Your task to perform on an android device: Show the shopping cart on bestbuy.com. Add "logitech g502" to the cart on bestbuy.com Image 0: 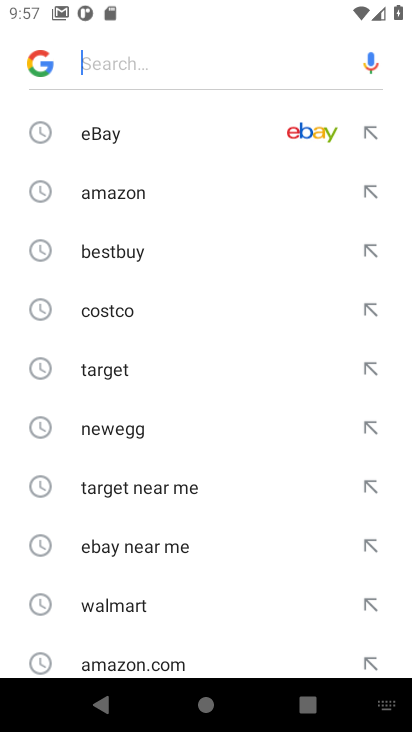
Step 0: click (121, 58)
Your task to perform on an android device: Show the shopping cart on bestbuy.com. Add "logitech g502" to the cart on bestbuy.com Image 1: 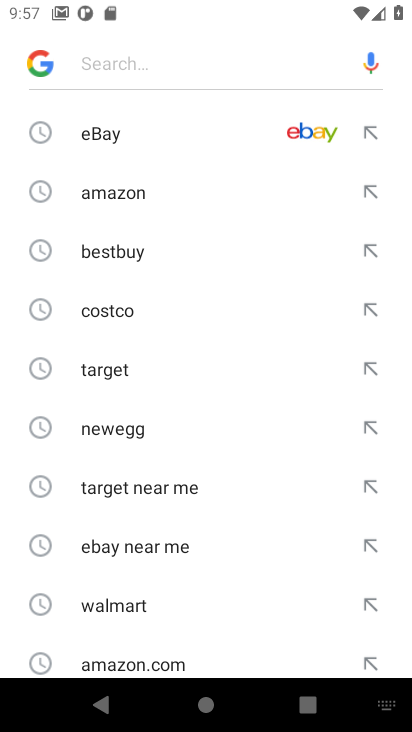
Step 1: type "bestbuy.com"
Your task to perform on an android device: Show the shopping cart on bestbuy.com. Add "logitech g502" to the cart on bestbuy.com Image 2: 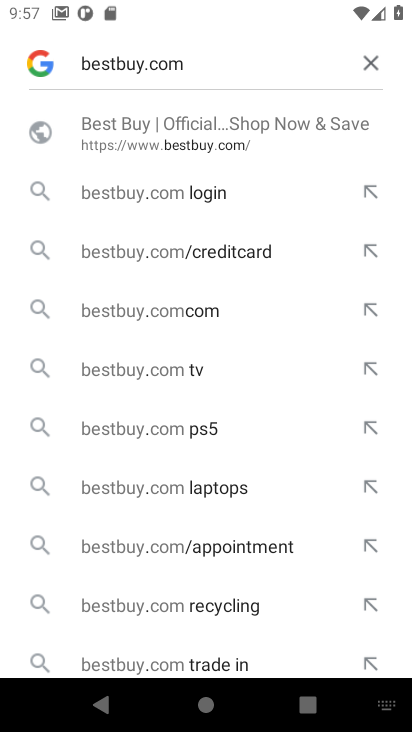
Step 2: click (143, 145)
Your task to perform on an android device: Show the shopping cart on bestbuy.com. Add "logitech g502" to the cart on bestbuy.com Image 3: 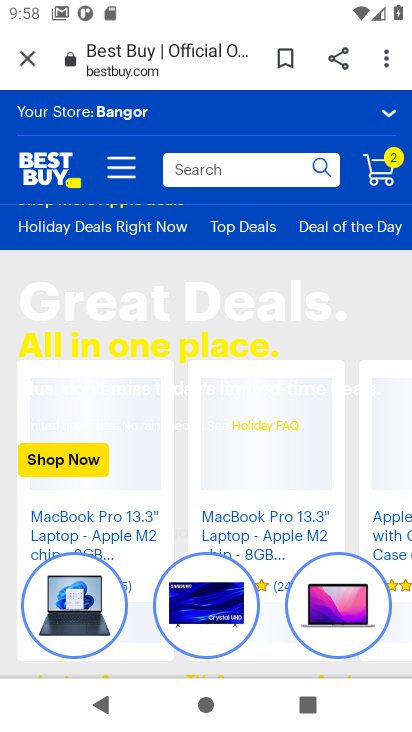
Step 3: click (378, 175)
Your task to perform on an android device: Show the shopping cart on bestbuy.com. Add "logitech g502" to the cart on bestbuy.com Image 4: 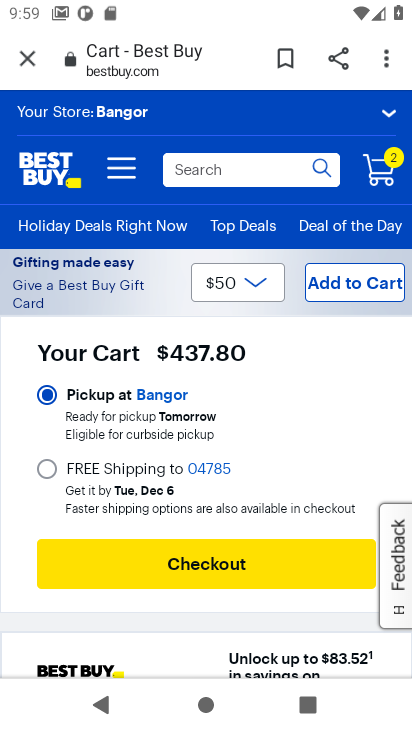
Step 4: click (187, 168)
Your task to perform on an android device: Show the shopping cart on bestbuy.com. Add "logitech g502" to the cart on bestbuy.com Image 5: 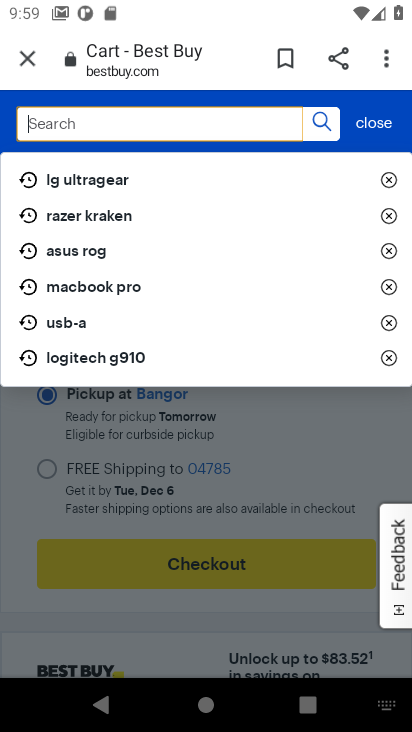
Step 5: type "logitech g502"
Your task to perform on an android device: Show the shopping cart on bestbuy.com. Add "logitech g502" to the cart on bestbuy.com Image 6: 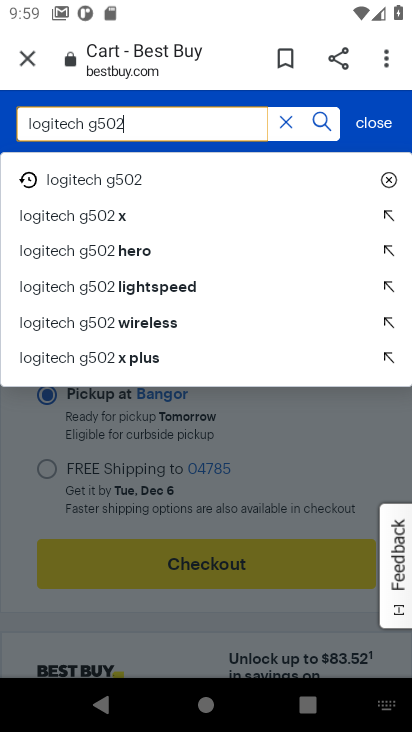
Step 6: click (91, 184)
Your task to perform on an android device: Show the shopping cart on bestbuy.com. Add "logitech g502" to the cart on bestbuy.com Image 7: 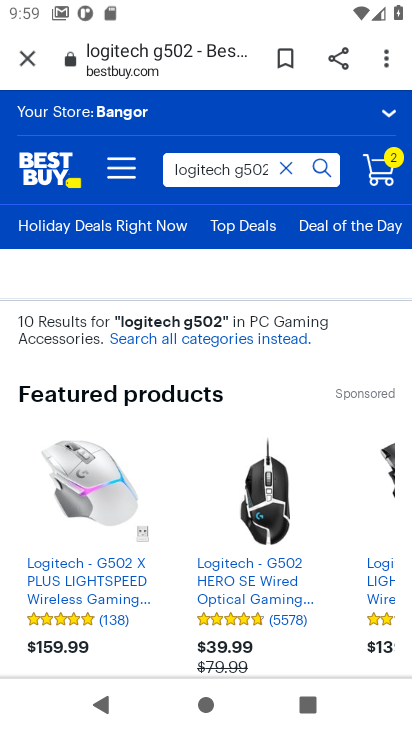
Step 7: drag from (164, 412) to (140, 257)
Your task to perform on an android device: Show the shopping cart on bestbuy.com. Add "logitech g502" to the cart on bestbuy.com Image 8: 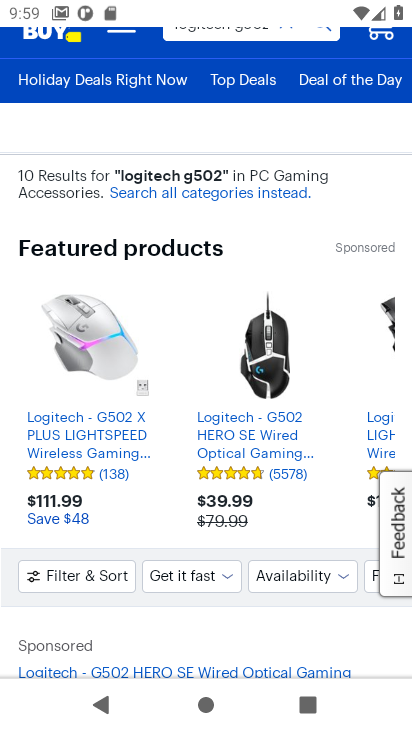
Step 8: drag from (176, 462) to (159, 91)
Your task to perform on an android device: Show the shopping cart on bestbuy.com. Add "logitech g502" to the cart on bestbuy.com Image 9: 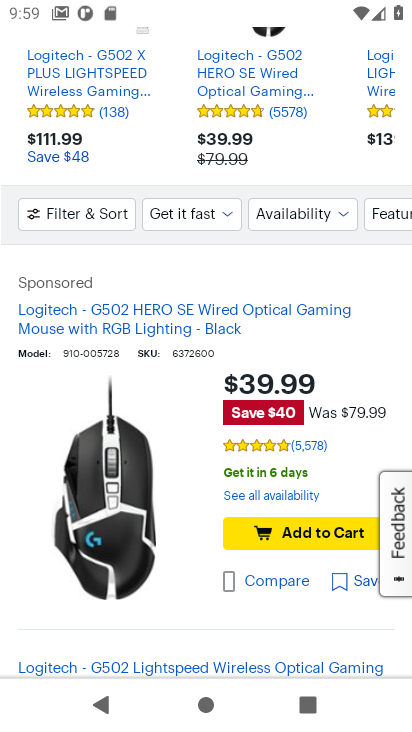
Step 9: drag from (134, 418) to (132, 235)
Your task to perform on an android device: Show the shopping cart on bestbuy.com. Add "logitech g502" to the cart on bestbuy.com Image 10: 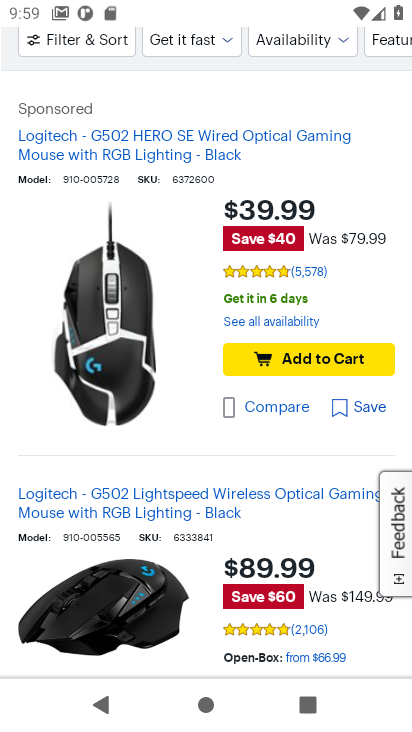
Step 10: click (293, 356)
Your task to perform on an android device: Show the shopping cart on bestbuy.com. Add "logitech g502" to the cart on bestbuy.com Image 11: 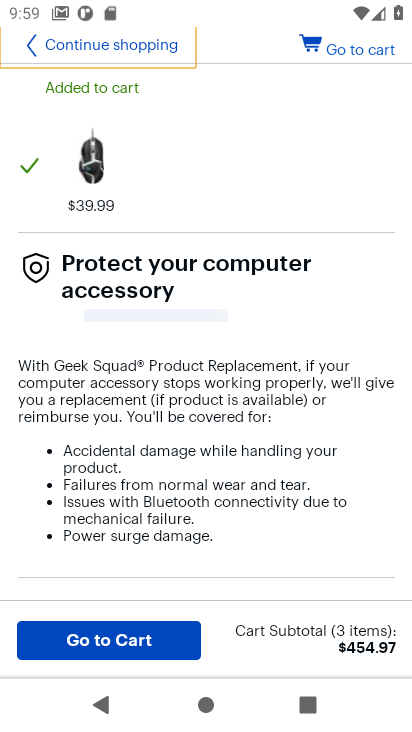
Step 11: task complete